Your task to perform on an android device: Is it going to rain today? Image 0: 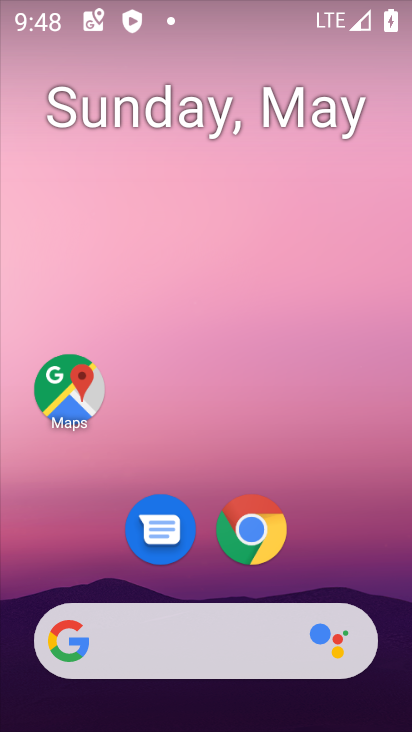
Step 0: click (228, 637)
Your task to perform on an android device: Is it going to rain today? Image 1: 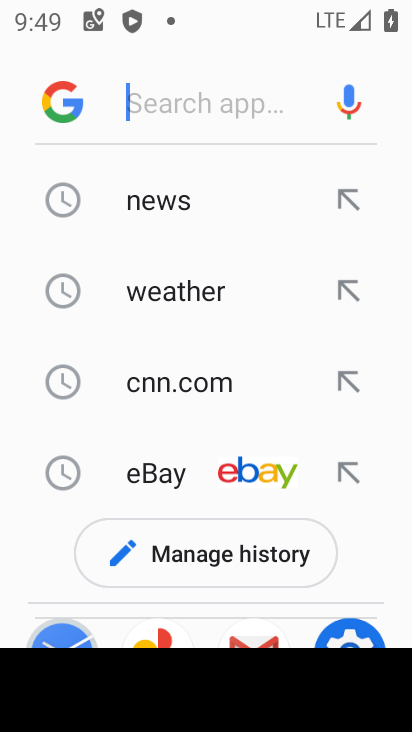
Step 1: click (187, 276)
Your task to perform on an android device: Is it going to rain today? Image 2: 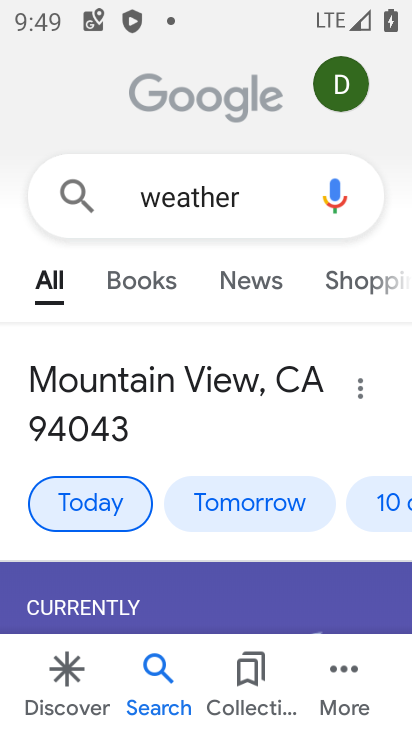
Step 2: task complete